Your task to perform on an android device: set the stopwatch Image 0: 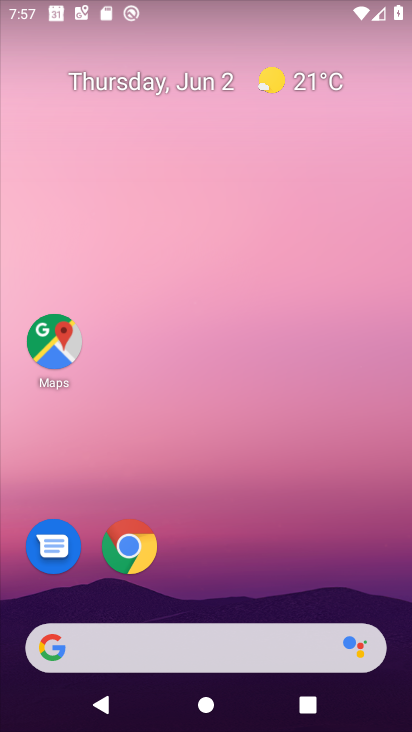
Step 0: drag from (375, 549) to (355, 186)
Your task to perform on an android device: set the stopwatch Image 1: 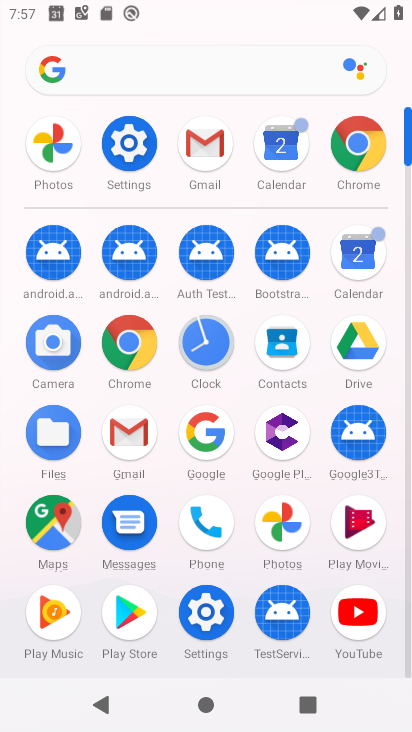
Step 1: drag from (283, 588) to (289, 357)
Your task to perform on an android device: set the stopwatch Image 2: 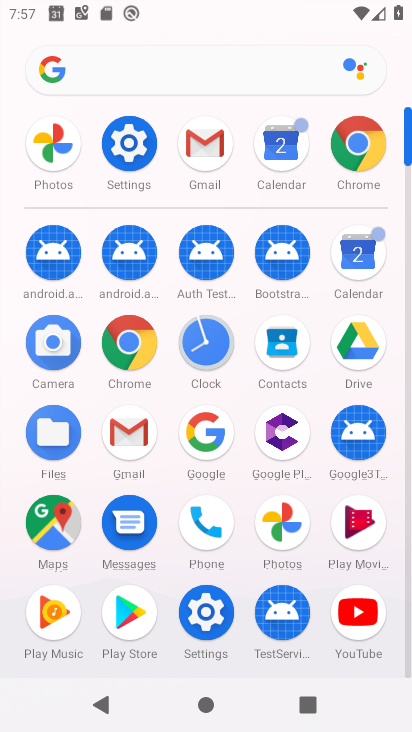
Step 2: click (229, 334)
Your task to perform on an android device: set the stopwatch Image 3: 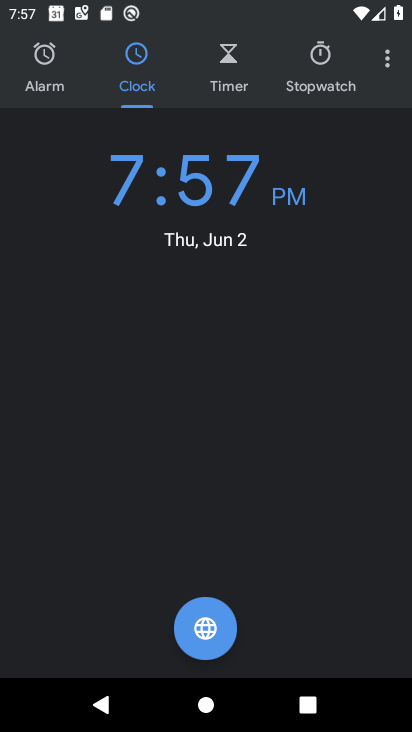
Step 3: click (319, 59)
Your task to perform on an android device: set the stopwatch Image 4: 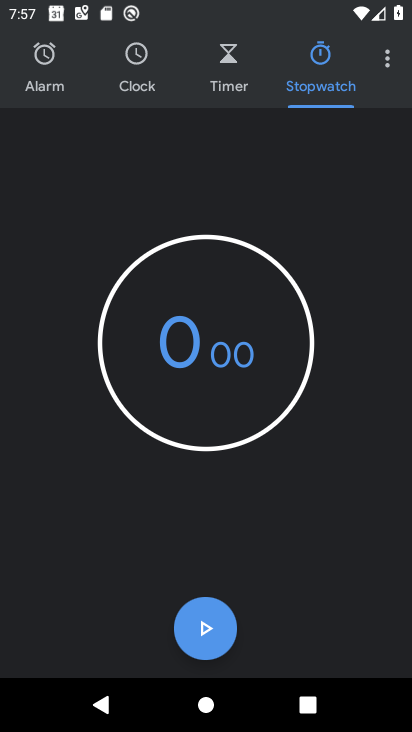
Step 4: click (216, 603)
Your task to perform on an android device: set the stopwatch Image 5: 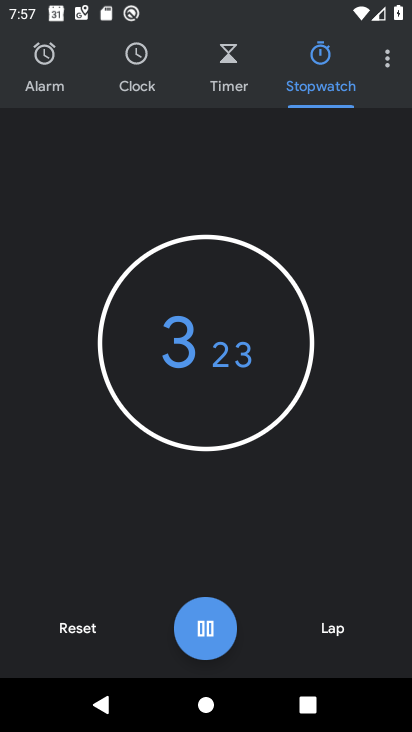
Step 5: click (206, 630)
Your task to perform on an android device: set the stopwatch Image 6: 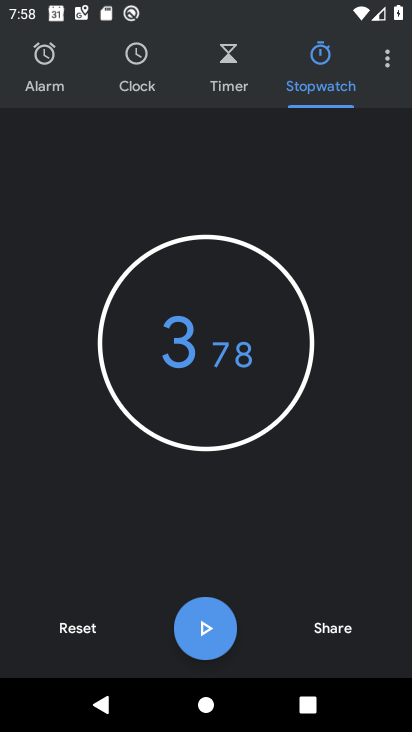
Step 6: task complete